Your task to perform on an android device: Open Reddit.com Image 0: 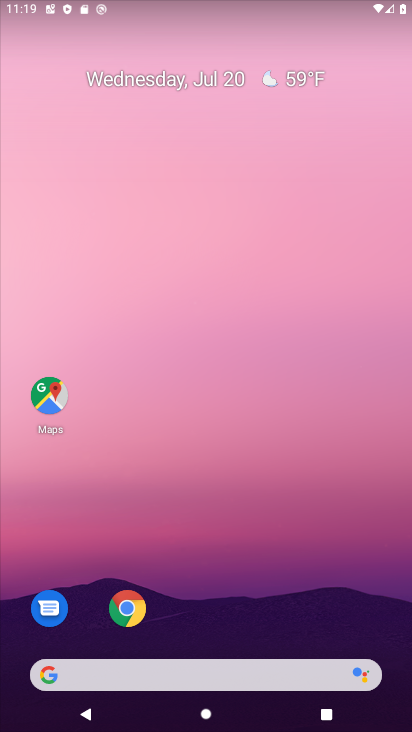
Step 0: drag from (342, 591) to (334, 67)
Your task to perform on an android device: Open Reddit.com Image 1: 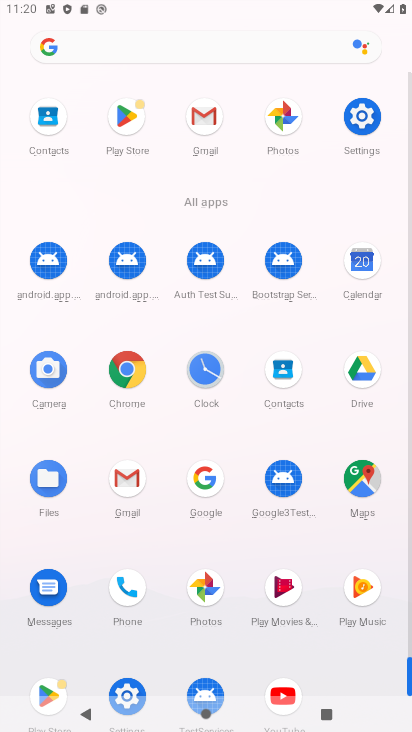
Step 1: click (132, 378)
Your task to perform on an android device: Open Reddit.com Image 2: 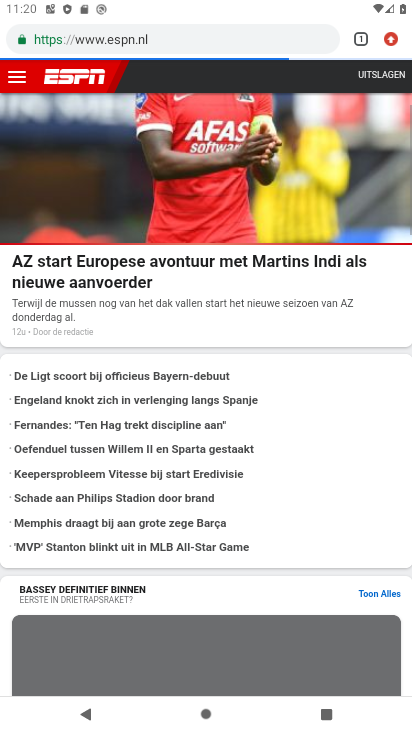
Step 2: click (205, 43)
Your task to perform on an android device: Open Reddit.com Image 3: 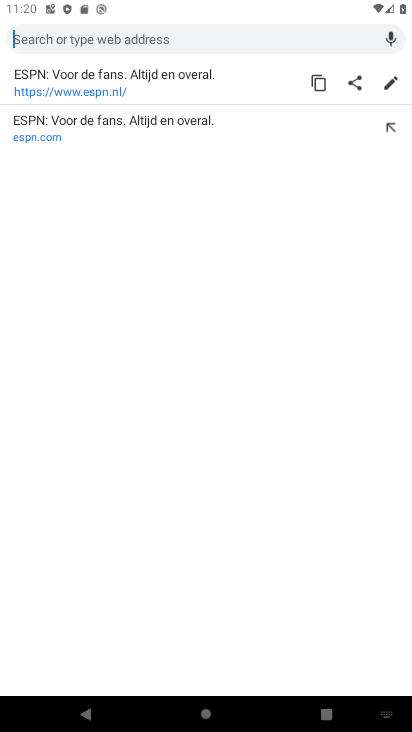
Step 3: type "reddit.com"
Your task to perform on an android device: Open Reddit.com Image 4: 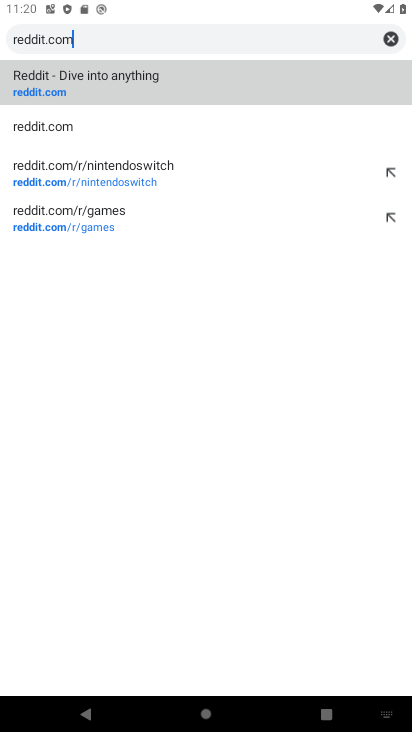
Step 4: click (177, 83)
Your task to perform on an android device: Open Reddit.com Image 5: 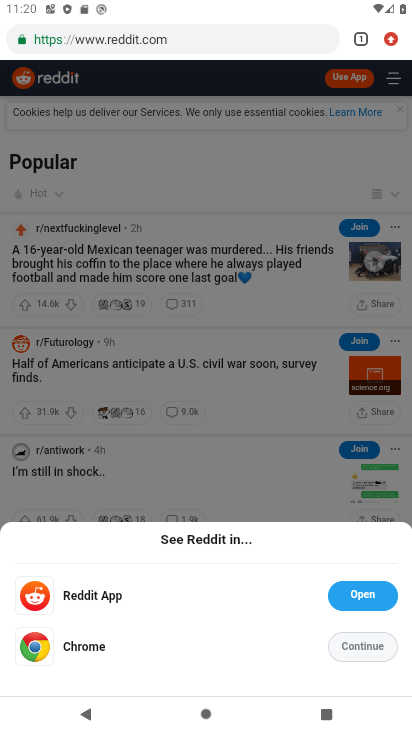
Step 5: task complete